Your task to perform on an android device: Go to ESPN.com Image 0: 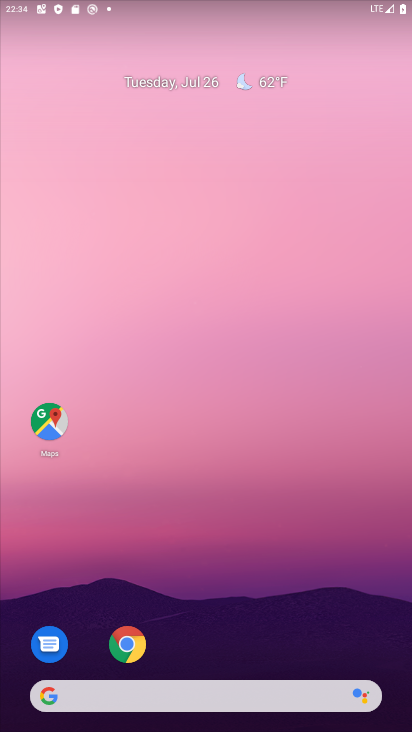
Step 0: click (131, 648)
Your task to perform on an android device: Go to ESPN.com Image 1: 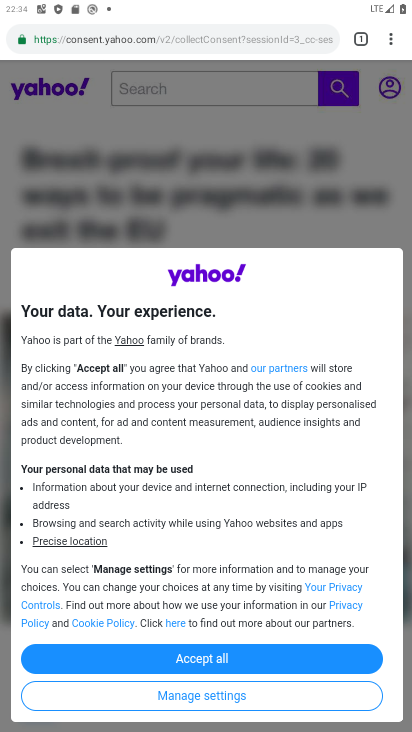
Step 1: click (236, 33)
Your task to perform on an android device: Go to ESPN.com Image 2: 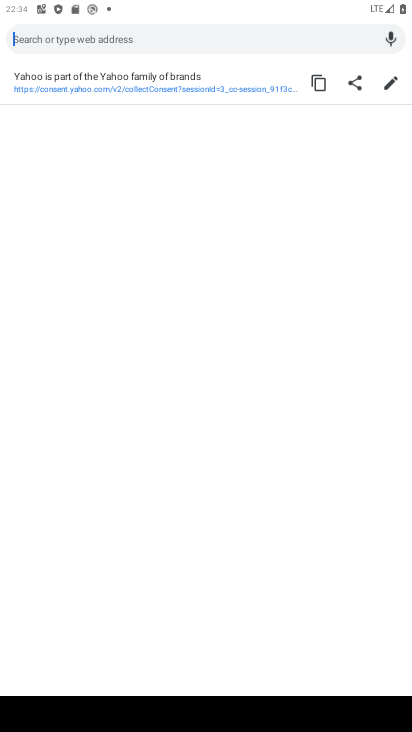
Step 2: type "espn.com"
Your task to perform on an android device: Go to ESPN.com Image 3: 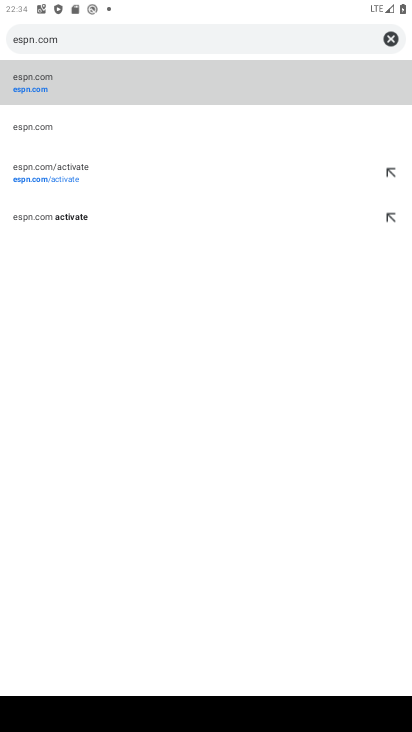
Step 3: click (35, 94)
Your task to perform on an android device: Go to ESPN.com Image 4: 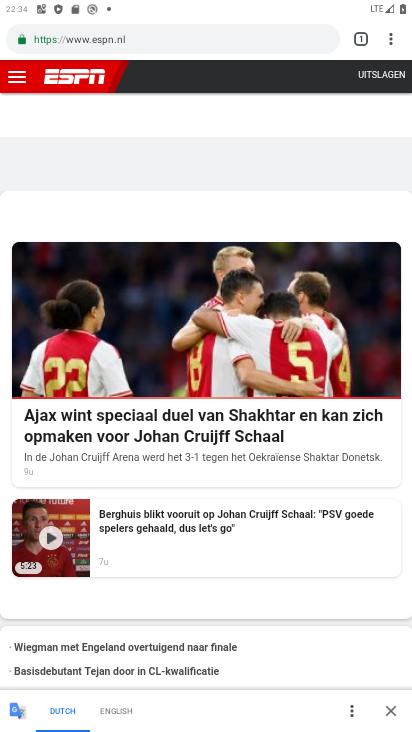
Step 4: task complete